Your task to perform on an android device: Open the phone app and click the voicemail tab. Image 0: 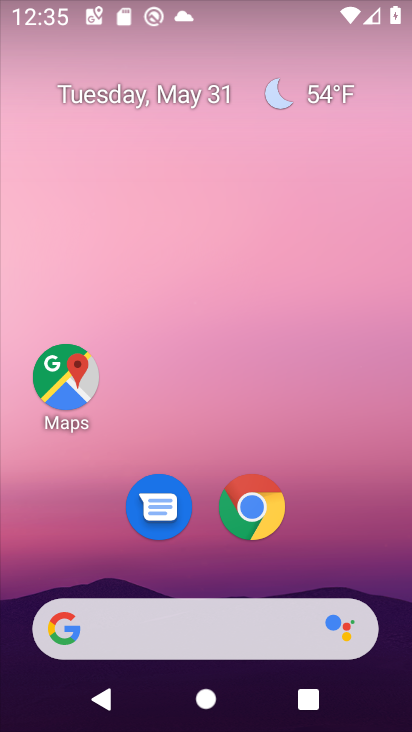
Step 0: drag from (252, 694) to (226, 306)
Your task to perform on an android device: Open the phone app and click the voicemail tab. Image 1: 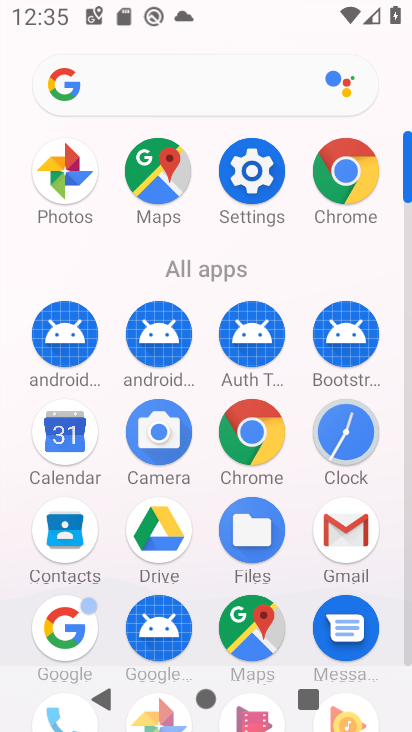
Step 1: drag from (210, 603) to (206, 392)
Your task to perform on an android device: Open the phone app and click the voicemail tab. Image 2: 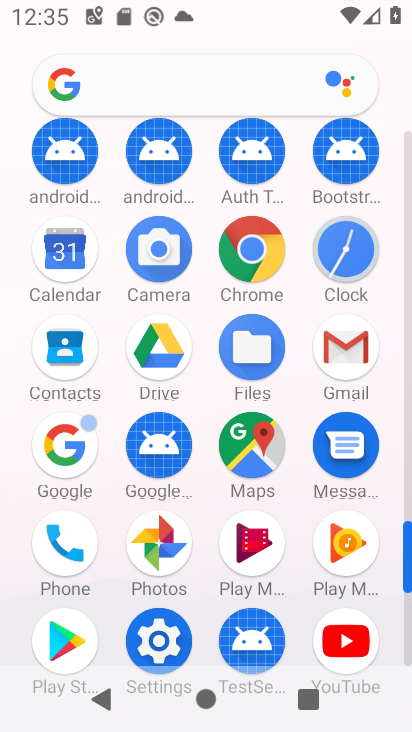
Step 2: drag from (171, 412) to (196, 387)
Your task to perform on an android device: Open the phone app and click the voicemail tab. Image 3: 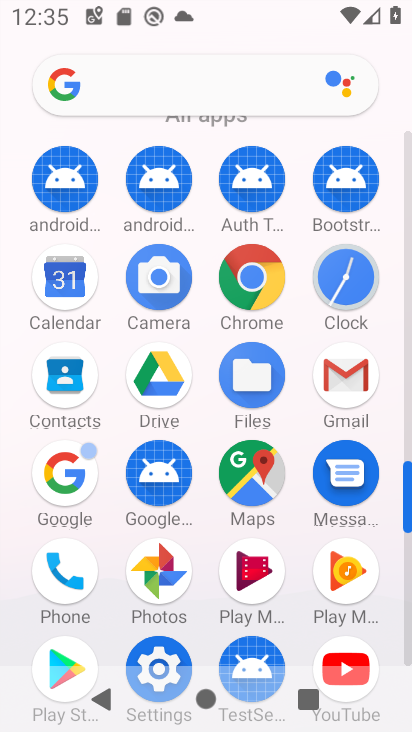
Step 3: drag from (184, 428) to (184, 394)
Your task to perform on an android device: Open the phone app and click the voicemail tab. Image 4: 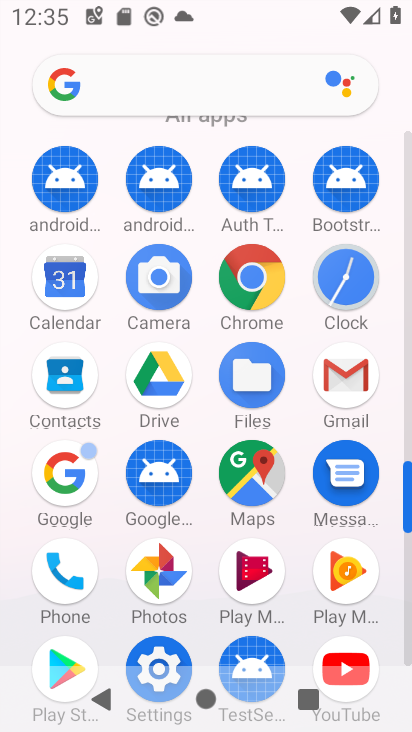
Step 4: click (64, 585)
Your task to perform on an android device: Open the phone app and click the voicemail tab. Image 5: 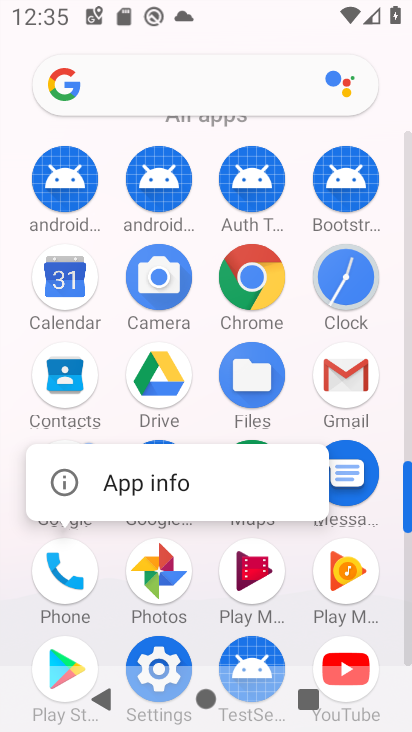
Step 5: click (69, 579)
Your task to perform on an android device: Open the phone app and click the voicemail tab. Image 6: 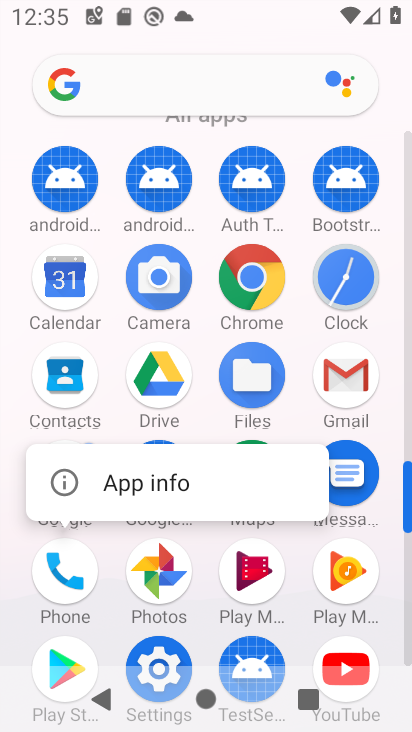
Step 6: click (64, 572)
Your task to perform on an android device: Open the phone app and click the voicemail tab. Image 7: 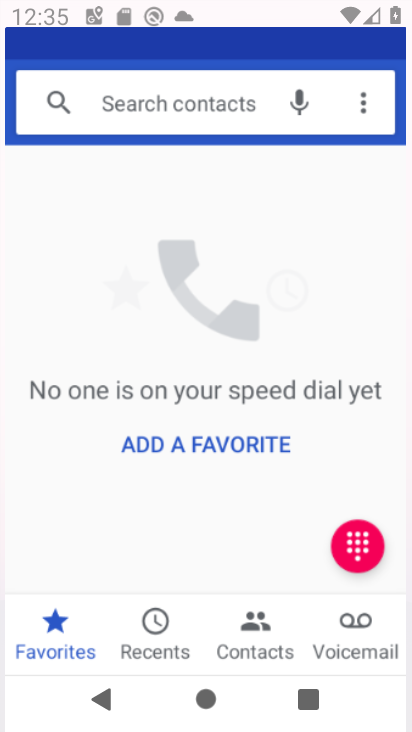
Step 7: click (78, 572)
Your task to perform on an android device: Open the phone app and click the voicemail tab. Image 8: 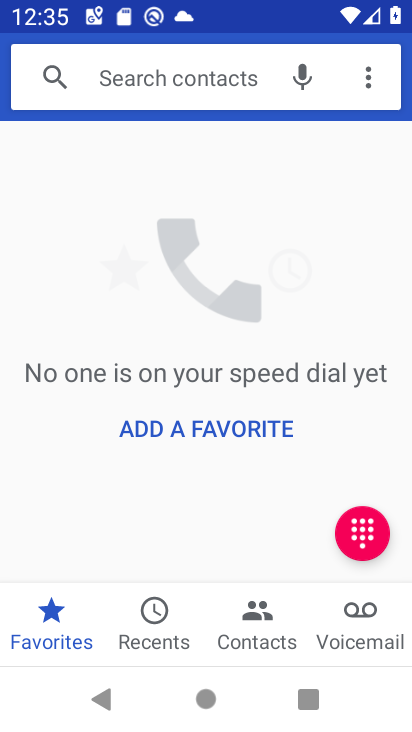
Step 8: click (367, 629)
Your task to perform on an android device: Open the phone app and click the voicemail tab. Image 9: 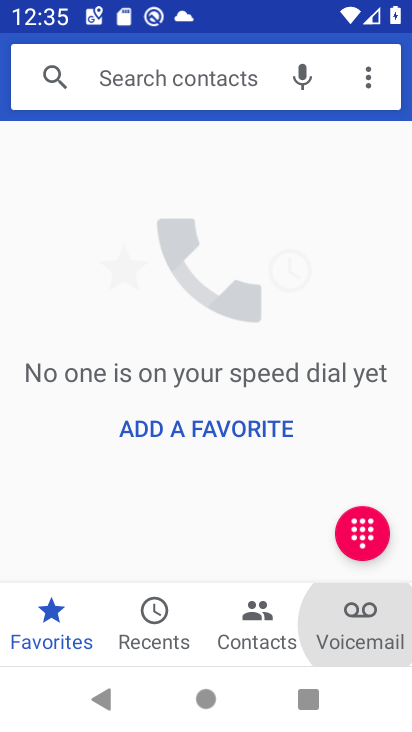
Step 9: click (365, 630)
Your task to perform on an android device: Open the phone app and click the voicemail tab. Image 10: 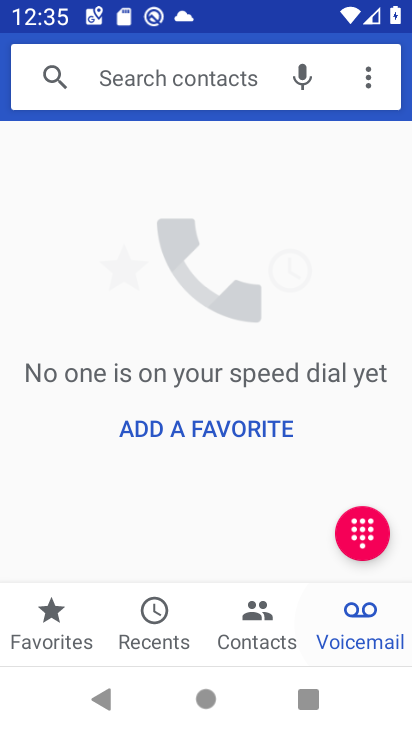
Step 10: click (356, 605)
Your task to perform on an android device: Open the phone app and click the voicemail tab. Image 11: 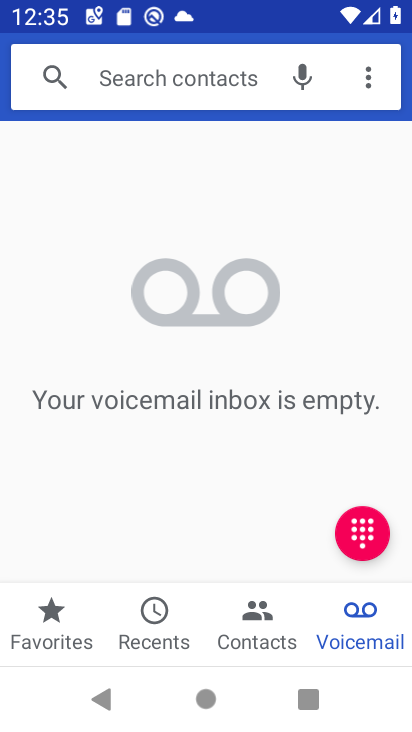
Step 11: task complete